Your task to perform on an android device: star an email in the gmail app Image 0: 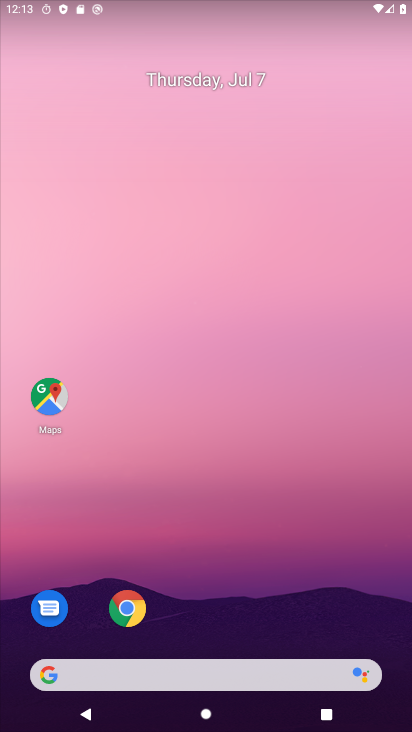
Step 0: drag from (249, 675) to (322, 87)
Your task to perform on an android device: star an email in the gmail app Image 1: 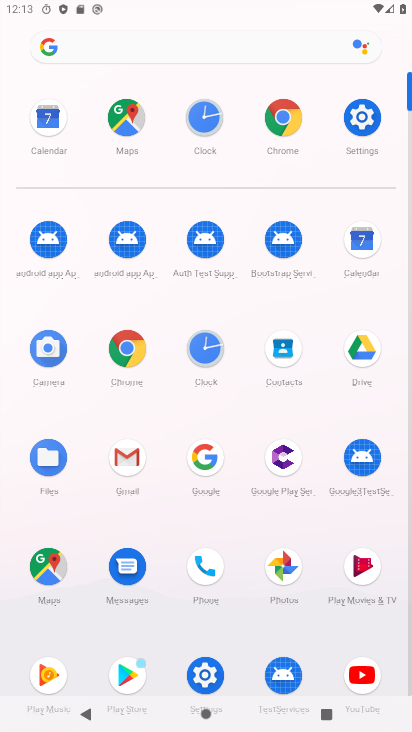
Step 1: click (135, 466)
Your task to perform on an android device: star an email in the gmail app Image 2: 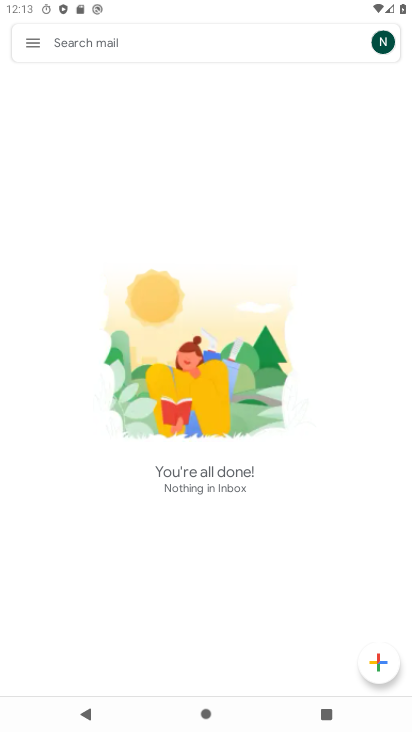
Step 2: click (38, 44)
Your task to perform on an android device: star an email in the gmail app Image 3: 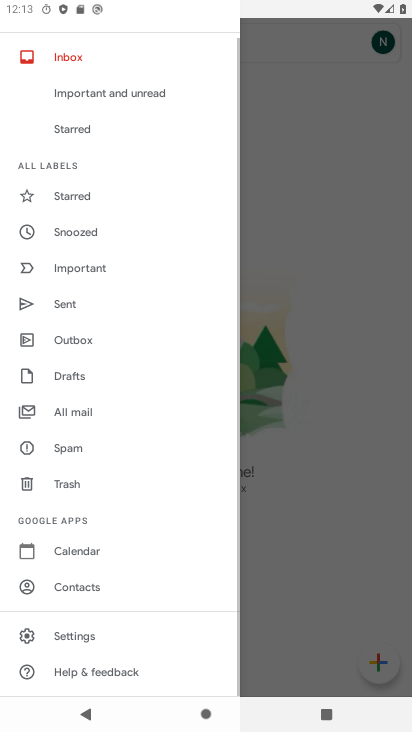
Step 3: drag from (99, 243) to (105, 354)
Your task to perform on an android device: star an email in the gmail app Image 4: 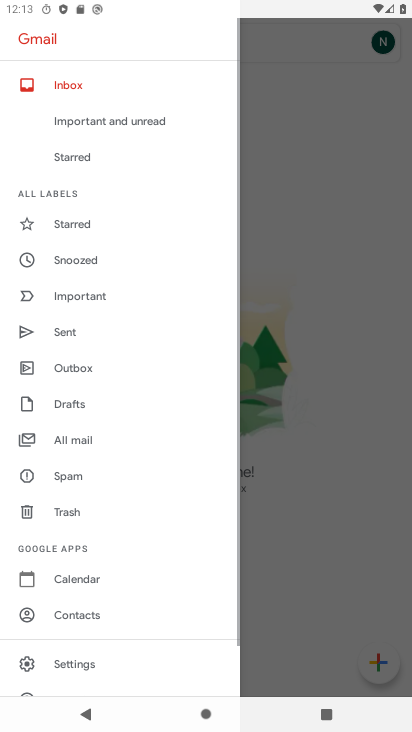
Step 4: click (92, 198)
Your task to perform on an android device: star an email in the gmail app Image 5: 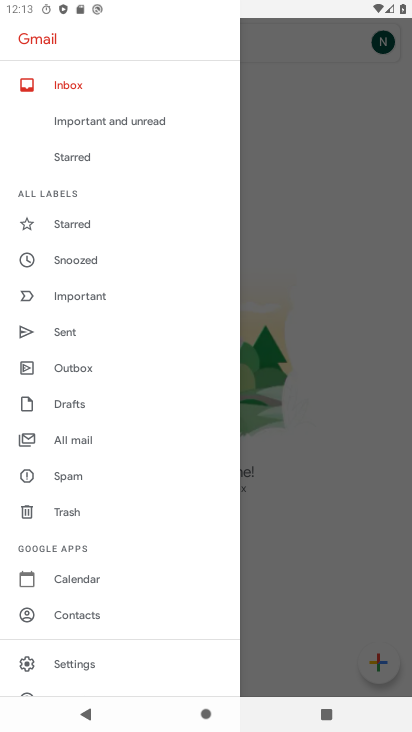
Step 5: click (110, 220)
Your task to perform on an android device: star an email in the gmail app Image 6: 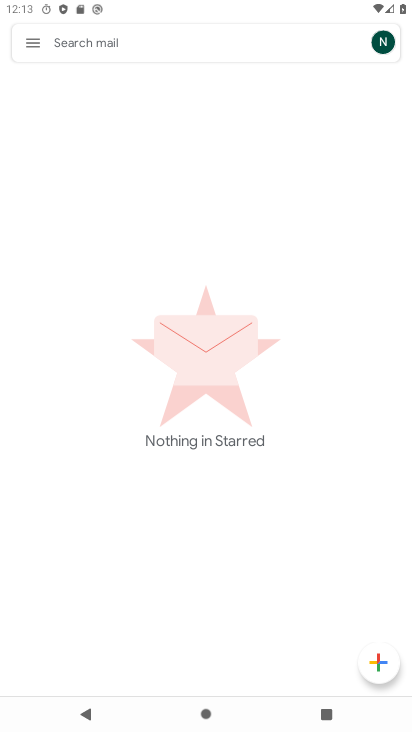
Step 6: task complete